Your task to perform on an android device: open wifi settings Image 0: 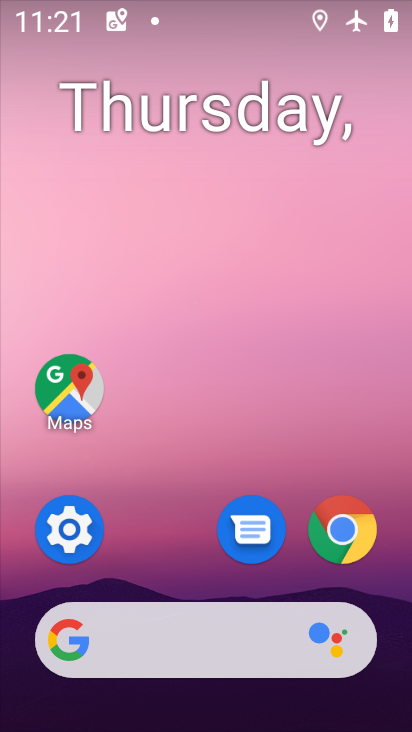
Step 0: click (70, 525)
Your task to perform on an android device: open wifi settings Image 1: 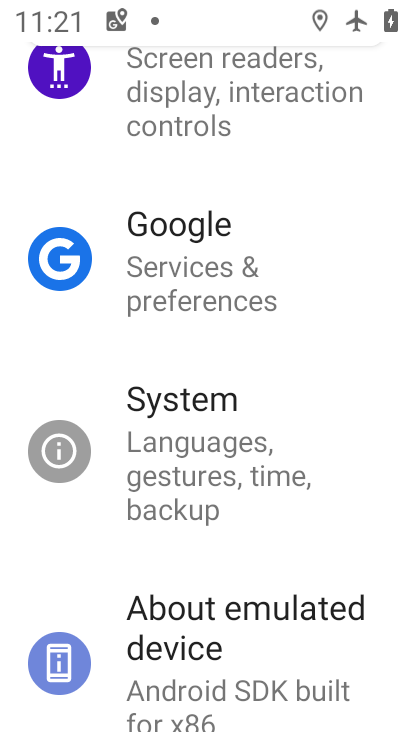
Step 1: drag from (313, 154) to (229, 715)
Your task to perform on an android device: open wifi settings Image 2: 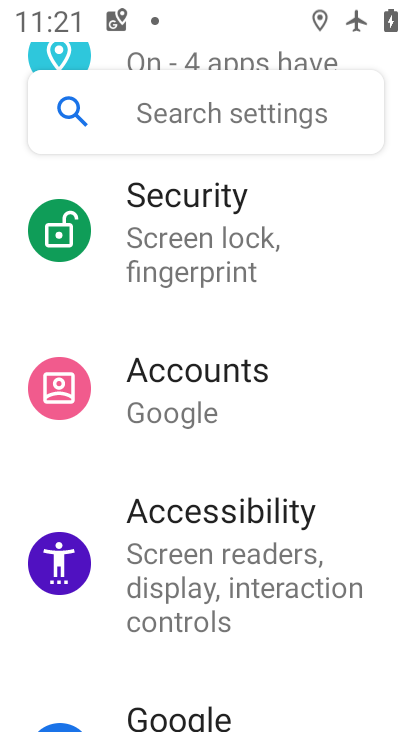
Step 2: drag from (355, 254) to (265, 731)
Your task to perform on an android device: open wifi settings Image 3: 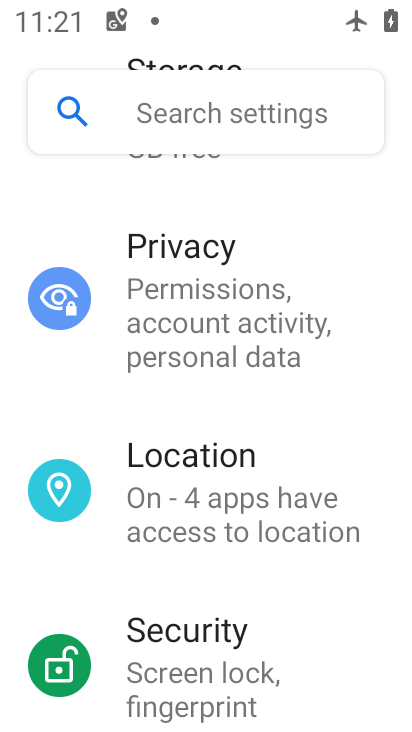
Step 3: drag from (301, 226) to (252, 724)
Your task to perform on an android device: open wifi settings Image 4: 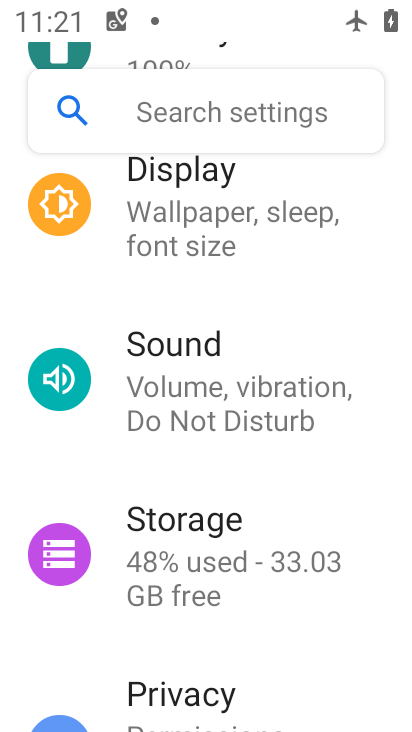
Step 4: drag from (259, 386) to (196, 708)
Your task to perform on an android device: open wifi settings Image 5: 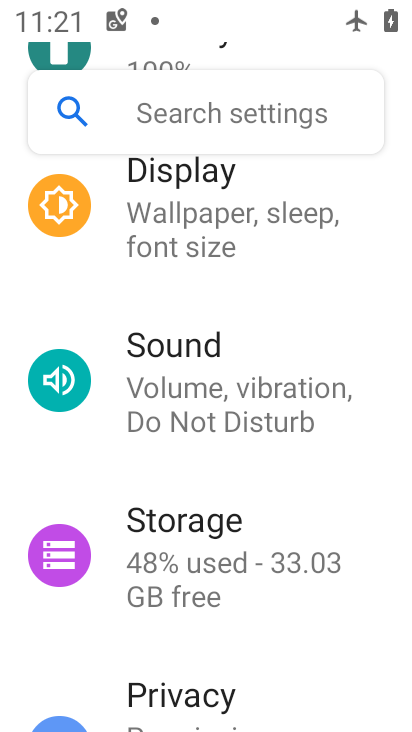
Step 5: drag from (294, 207) to (270, 726)
Your task to perform on an android device: open wifi settings Image 6: 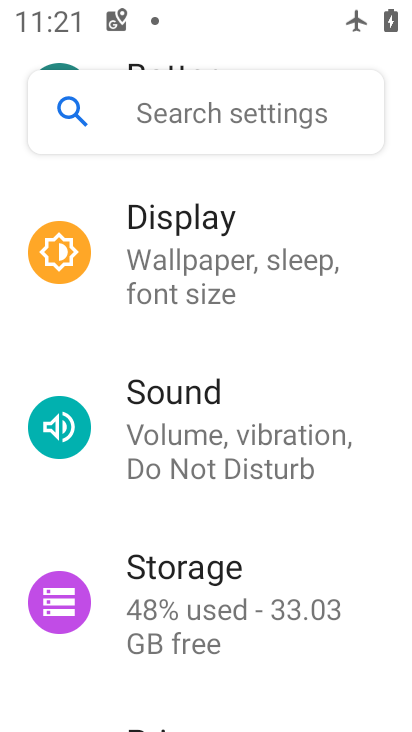
Step 6: drag from (311, 227) to (277, 718)
Your task to perform on an android device: open wifi settings Image 7: 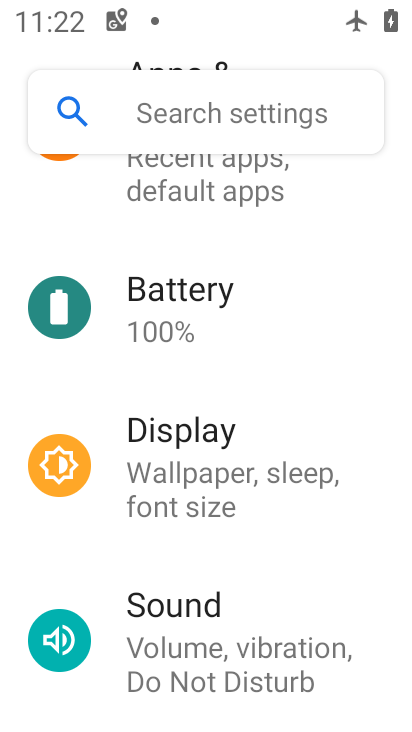
Step 7: drag from (323, 261) to (324, 725)
Your task to perform on an android device: open wifi settings Image 8: 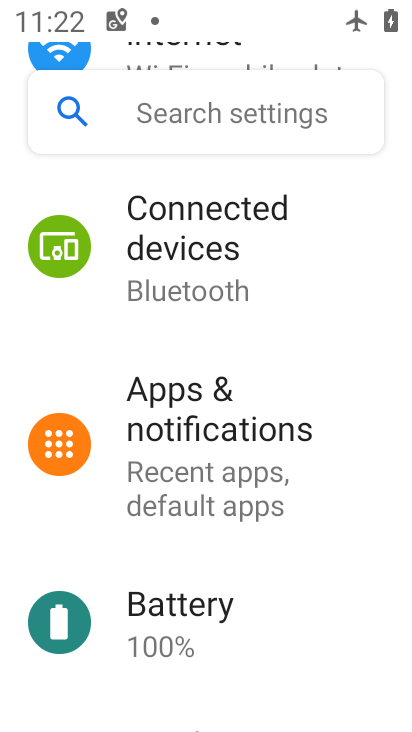
Step 8: drag from (325, 216) to (297, 728)
Your task to perform on an android device: open wifi settings Image 9: 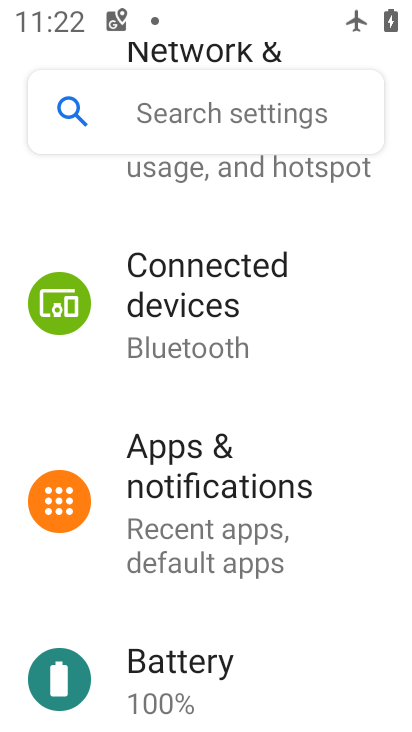
Step 9: click (323, 179)
Your task to perform on an android device: open wifi settings Image 10: 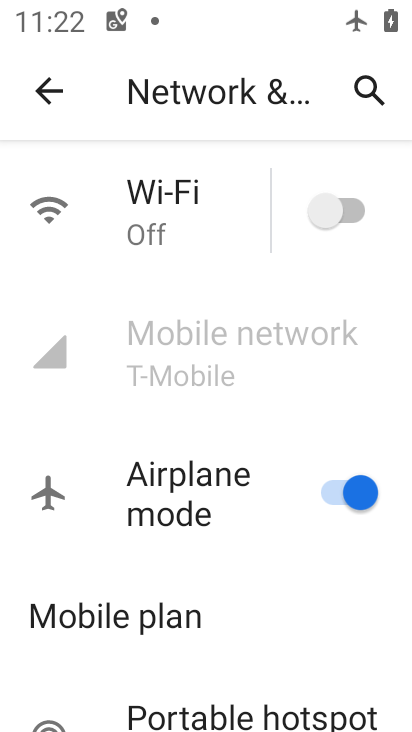
Step 10: task complete